Your task to perform on an android device: Open Amazon Image 0: 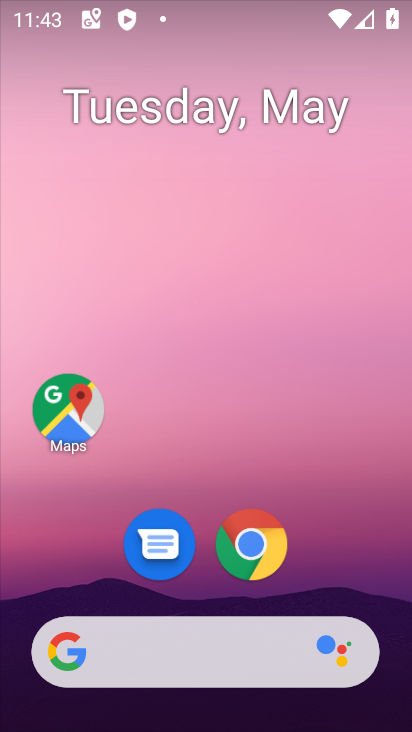
Step 0: drag from (364, 672) to (136, 124)
Your task to perform on an android device: Open Amazon Image 1: 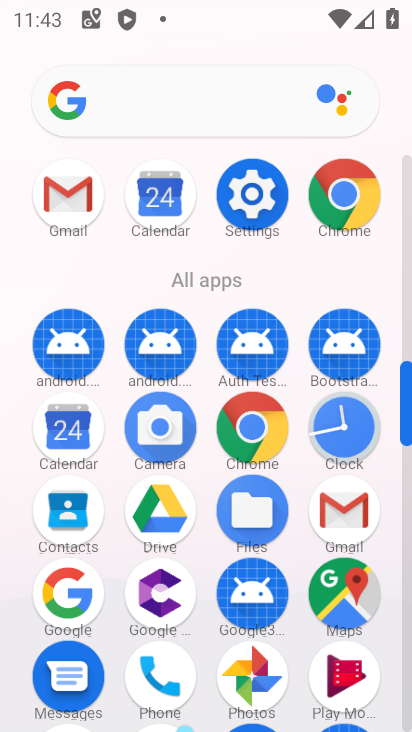
Step 1: click (346, 189)
Your task to perform on an android device: Open Amazon Image 2: 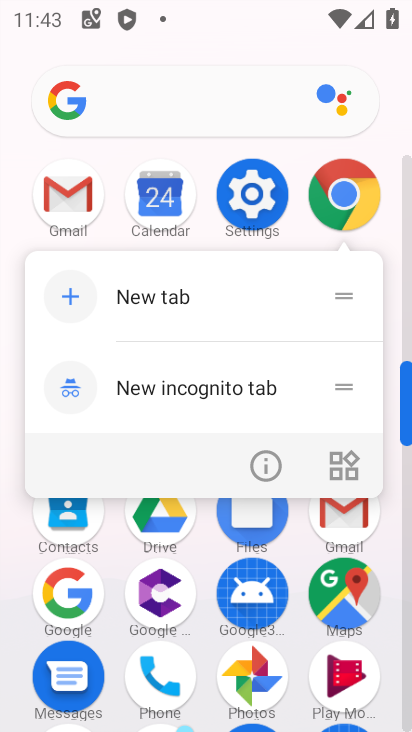
Step 2: click (345, 190)
Your task to perform on an android device: Open Amazon Image 3: 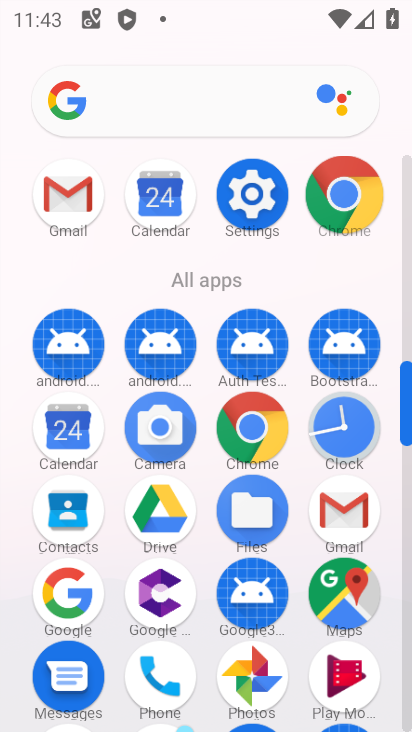
Step 3: click (345, 189)
Your task to perform on an android device: Open Amazon Image 4: 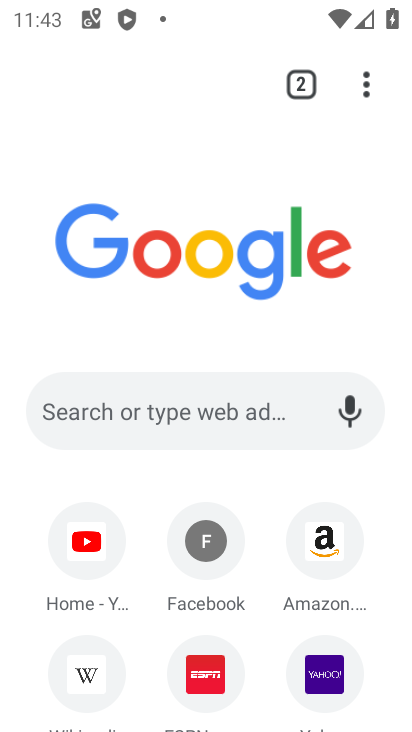
Step 4: click (345, 185)
Your task to perform on an android device: Open Amazon Image 5: 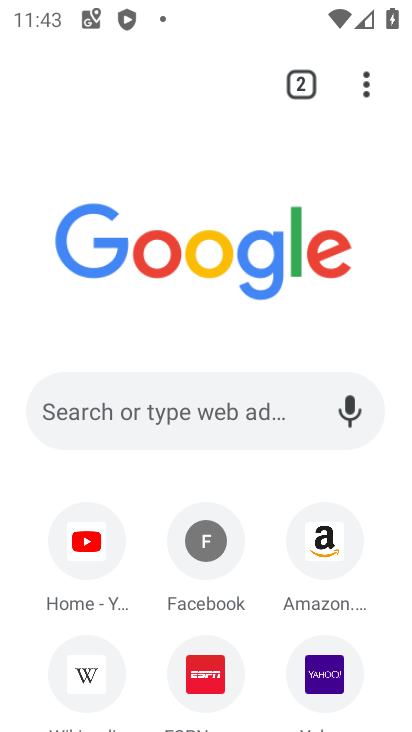
Step 5: click (345, 185)
Your task to perform on an android device: Open Amazon Image 6: 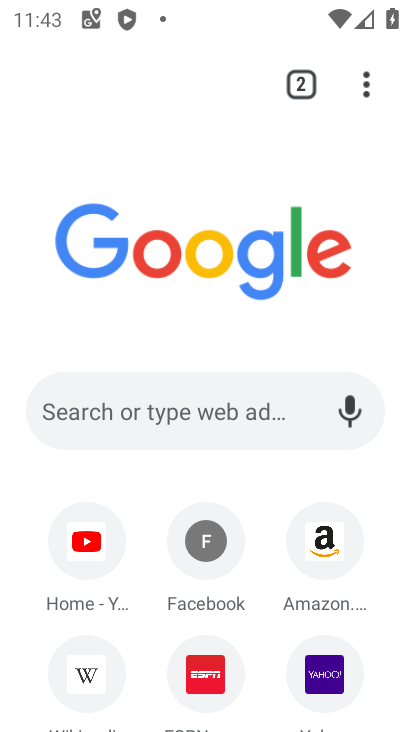
Step 6: click (329, 538)
Your task to perform on an android device: Open Amazon Image 7: 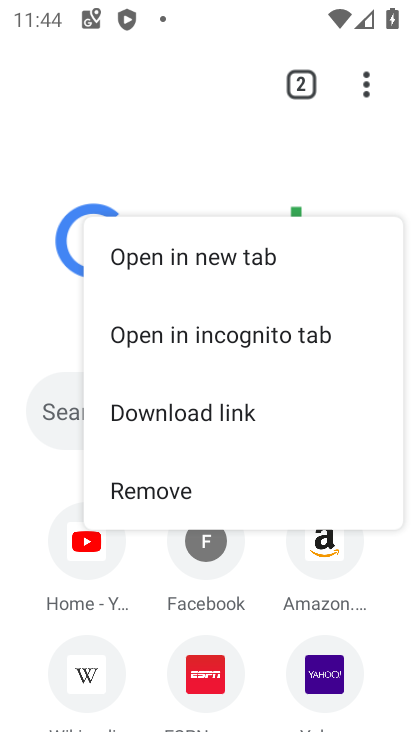
Step 7: click (340, 535)
Your task to perform on an android device: Open Amazon Image 8: 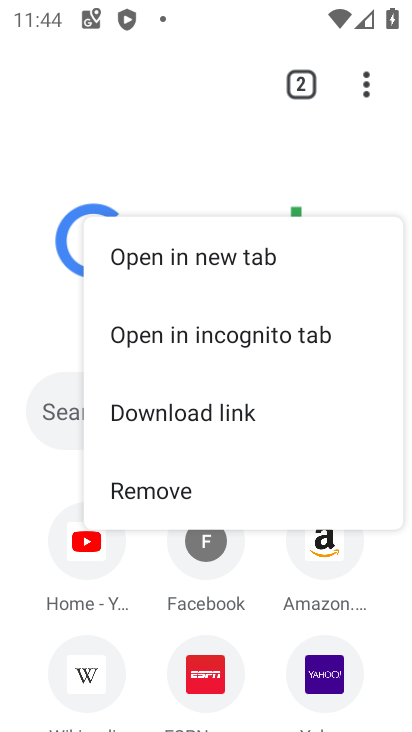
Step 8: click (316, 540)
Your task to perform on an android device: Open Amazon Image 9: 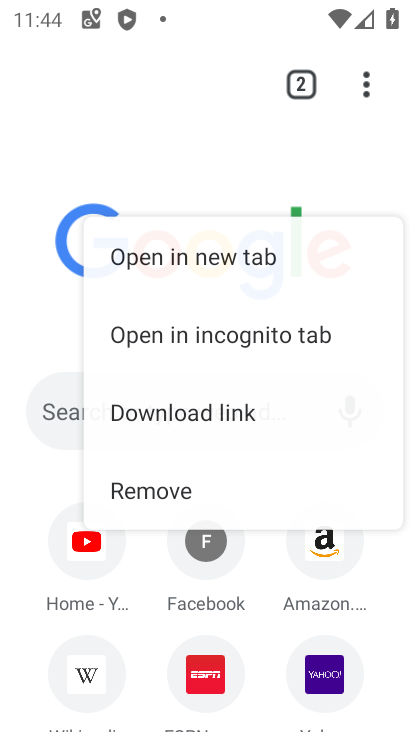
Step 9: click (320, 534)
Your task to perform on an android device: Open Amazon Image 10: 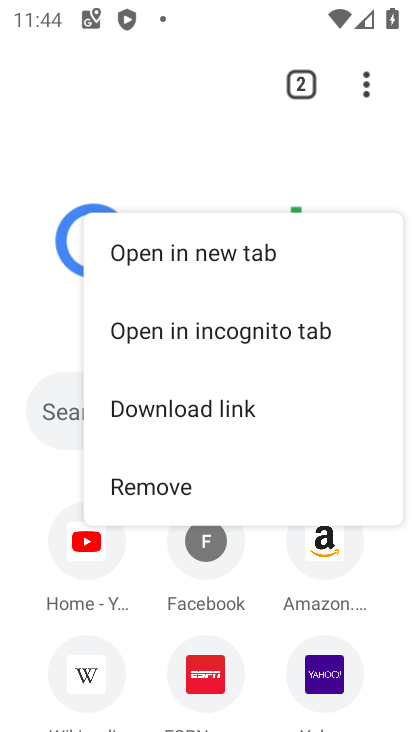
Step 10: click (207, 248)
Your task to perform on an android device: Open Amazon Image 11: 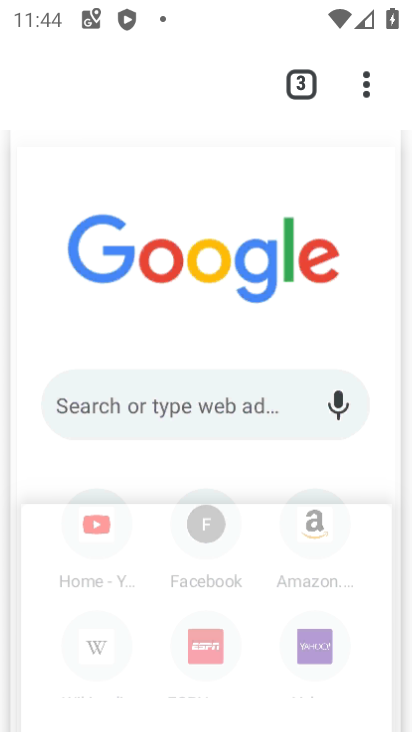
Step 11: click (193, 253)
Your task to perform on an android device: Open Amazon Image 12: 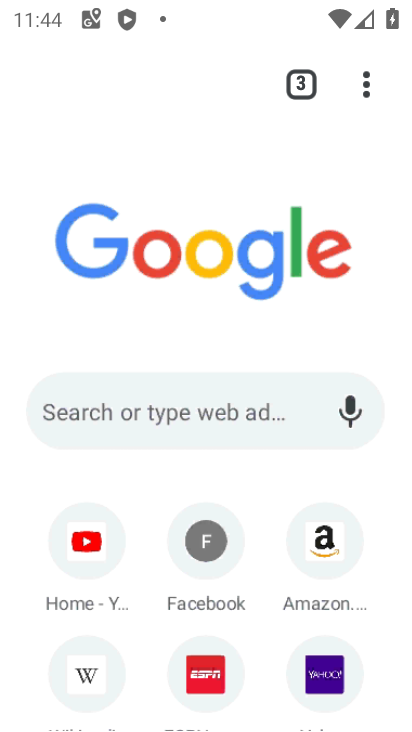
Step 12: click (193, 252)
Your task to perform on an android device: Open Amazon Image 13: 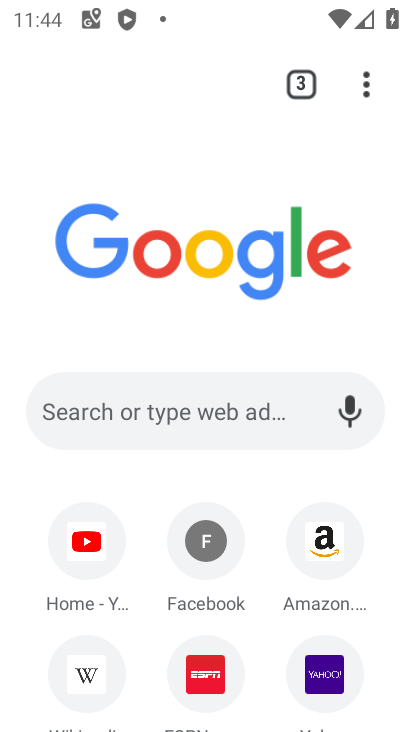
Step 13: click (196, 250)
Your task to perform on an android device: Open Amazon Image 14: 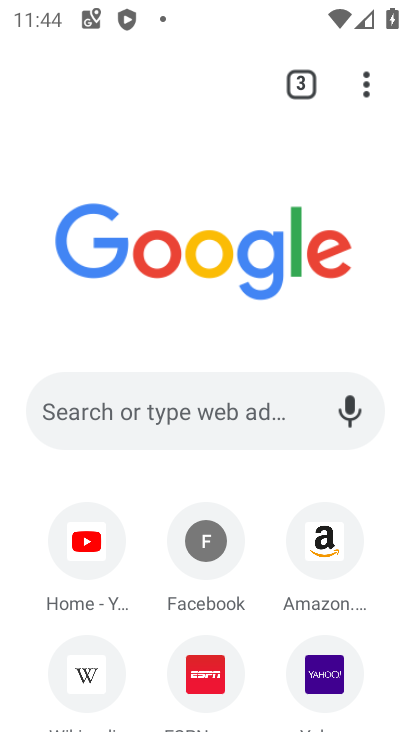
Step 14: task complete